Your task to perform on an android device: turn off notifications settings in the gmail app Image 0: 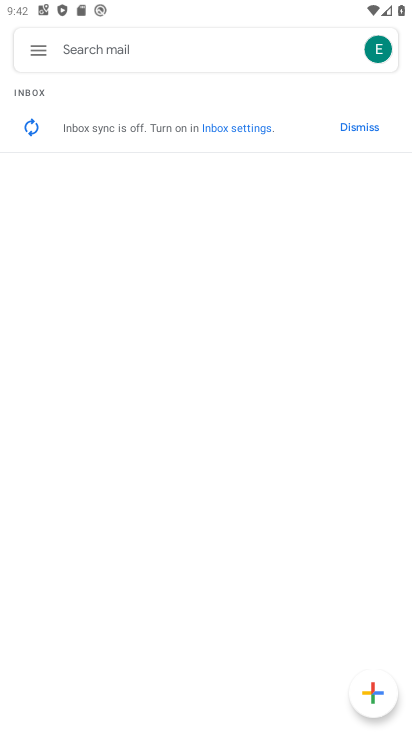
Step 0: click (40, 56)
Your task to perform on an android device: turn off notifications settings in the gmail app Image 1: 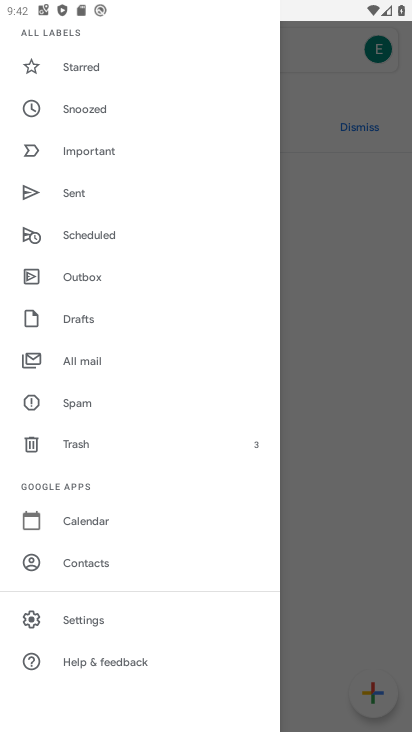
Step 1: click (81, 622)
Your task to perform on an android device: turn off notifications settings in the gmail app Image 2: 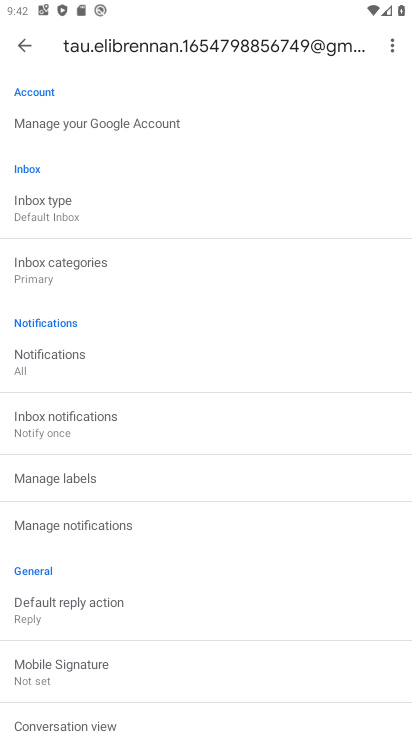
Step 2: click (75, 523)
Your task to perform on an android device: turn off notifications settings in the gmail app Image 3: 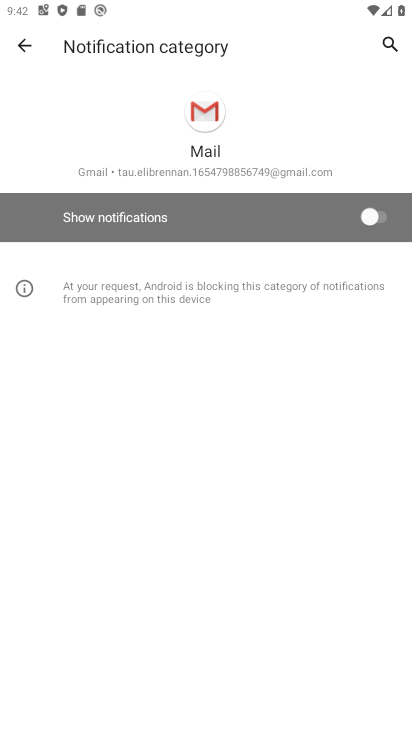
Step 3: task complete